Your task to perform on an android device: Go to privacy settings Image 0: 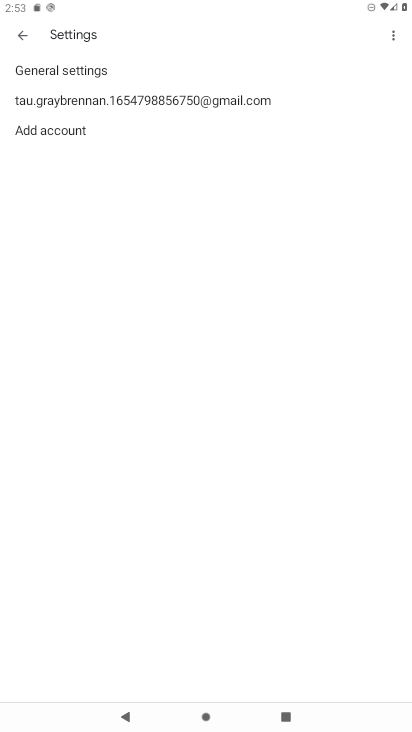
Step 0: press home button
Your task to perform on an android device: Go to privacy settings Image 1: 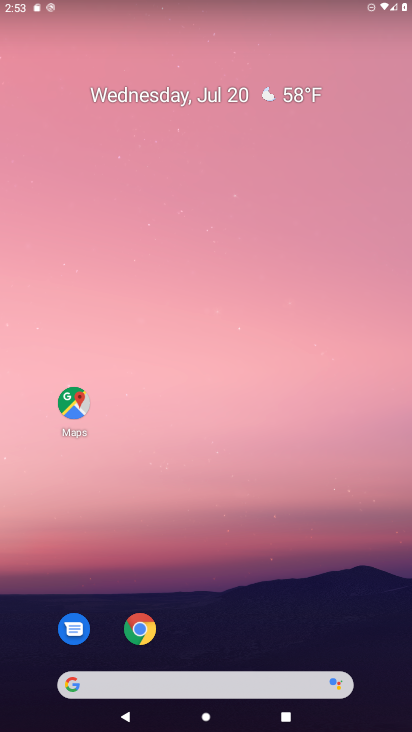
Step 1: drag from (288, 649) to (250, 214)
Your task to perform on an android device: Go to privacy settings Image 2: 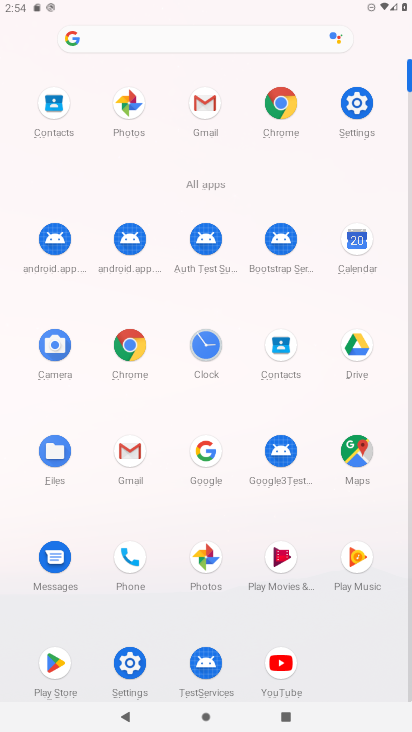
Step 2: click (129, 653)
Your task to perform on an android device: Go to privacy settings Image 3: 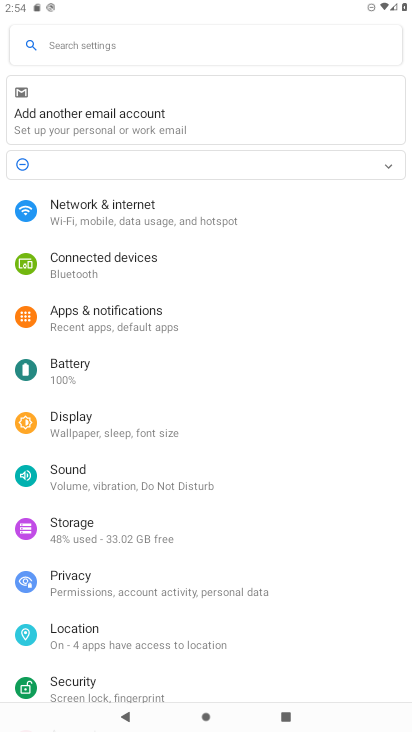
Step 3: click (102, 574)
Your task to perform on an android device: Go to privacy settings Image 4: 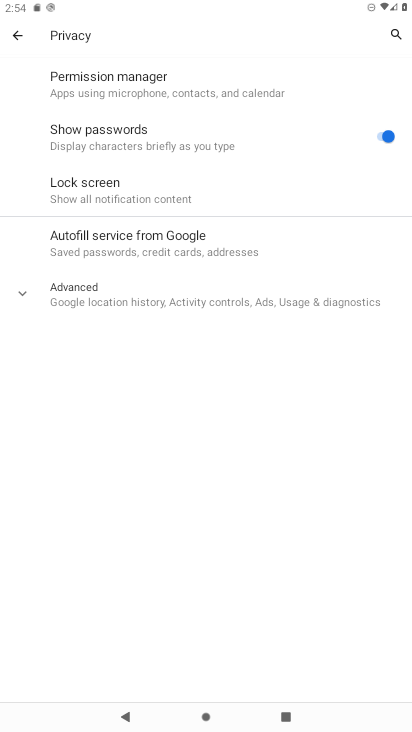
Step 4: task complete